Your task to perform on an android device: Open Google Maps Image 0: 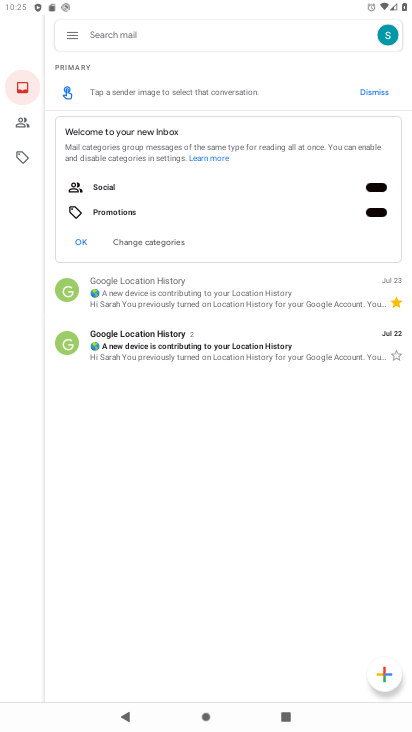
Step 0: press home button
Your task to perform on an android device: Open Google Maps Image 1: 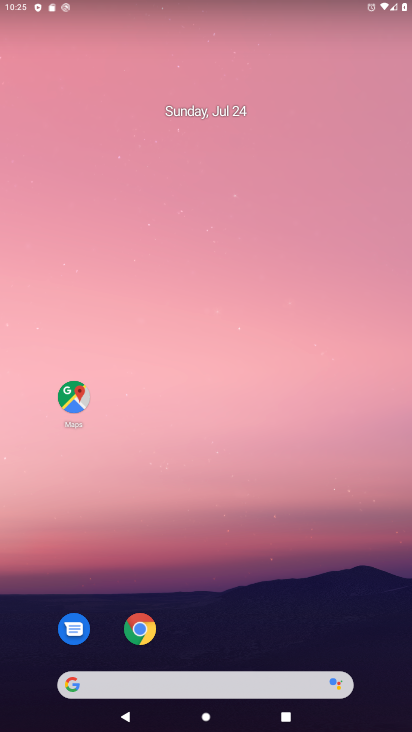
Step 1: click (74, 400)
Your task to perform on an android device: Open Google Maps Image 2: 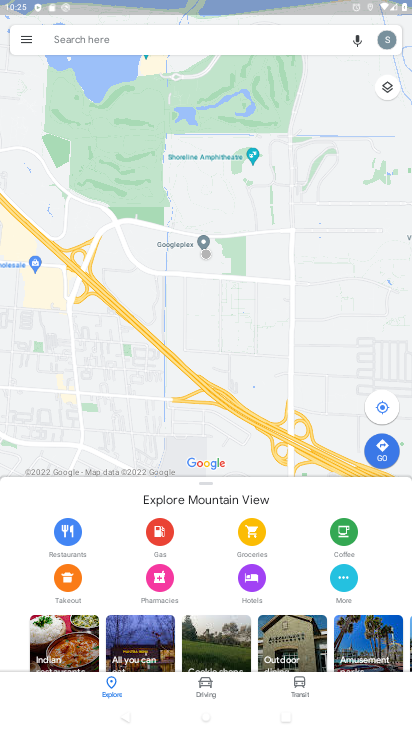
Step 2: task complete